Your task to perform on an android device: open device folders in google photos Image 0: 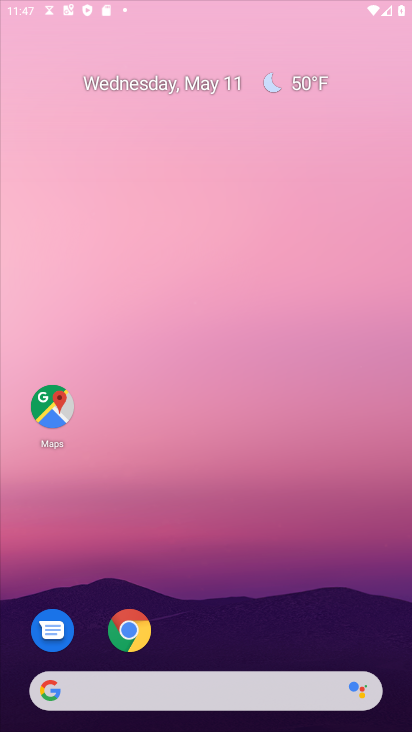
Step 0: click (202, 9)
Your task to perform on an android device: open device folders in google photos Image 1: 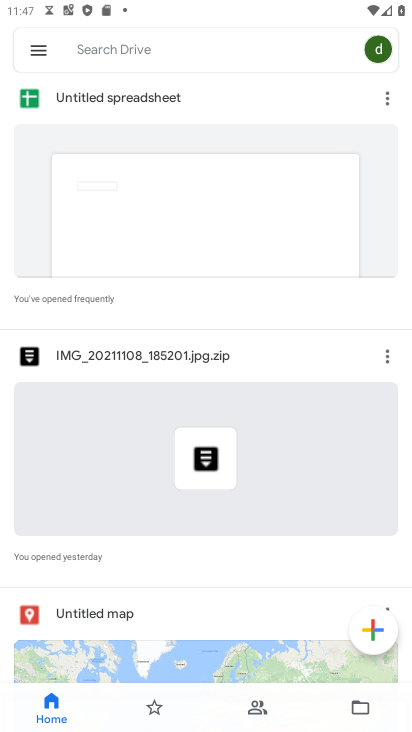
Step 1: press home button
Your task to perform on an android device: open device folders in google photos Image 2: 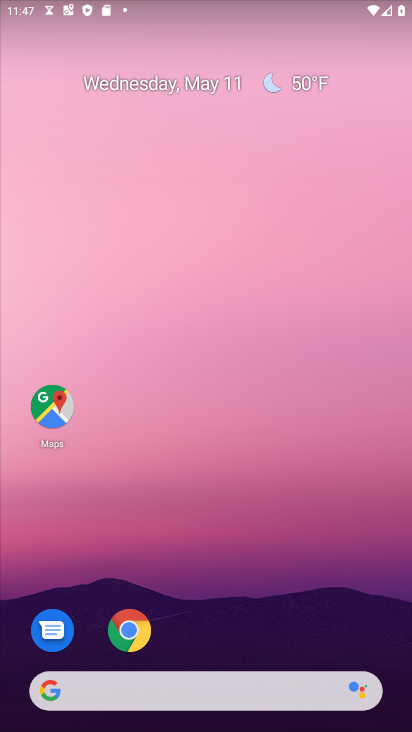
Step 2: drag from (205, 725) to (187, 81)
Your task to perform on an android device: open device folders in google photos Image 3: 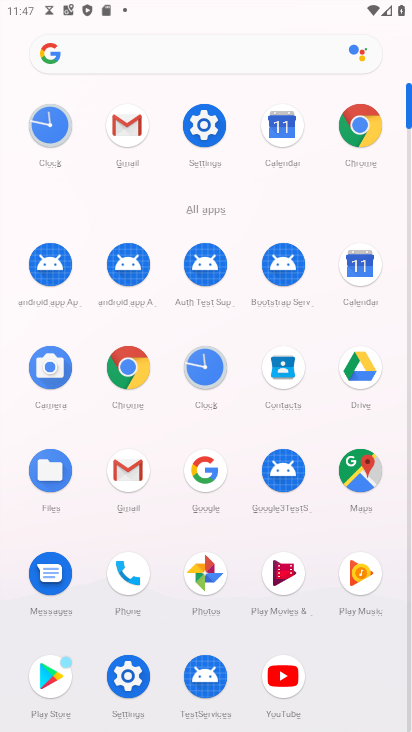
Step 3: click (211, 575)
Your task to perform on an android device: open device folders in google photos Image 4: 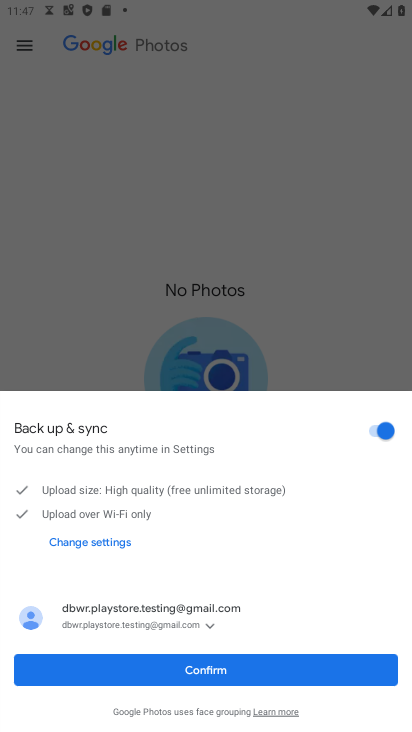
Step 4: click (213, 674)
Your task to perform on an android device: open device folders in google photos Image 5: 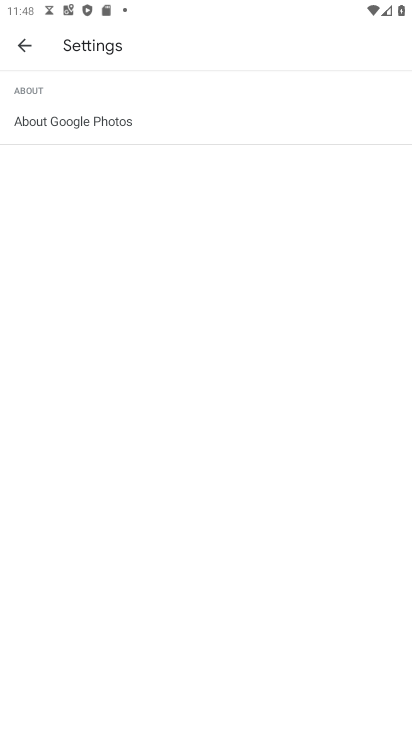
Step 5: click (23, 46)
Your task to perform on an android device: open device folders in google photos Image 6: 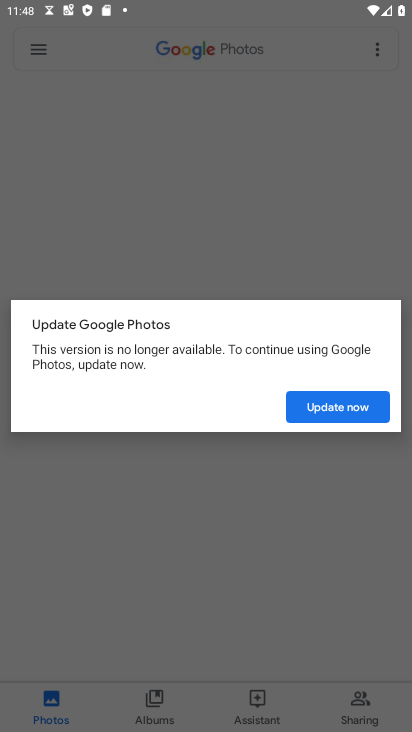
Step 6: task complete